Your task to perform on an android device: Show me popular games on the Play Store Image 0: 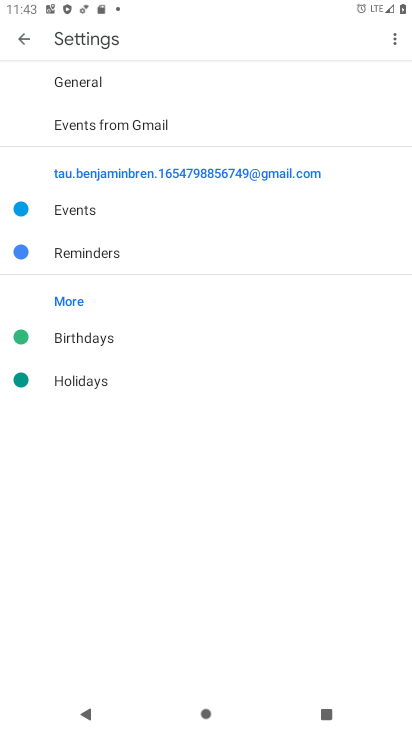
Step 0: press home button
Your task to perform on an android device: Show me popular games on the Play Store Image 1: 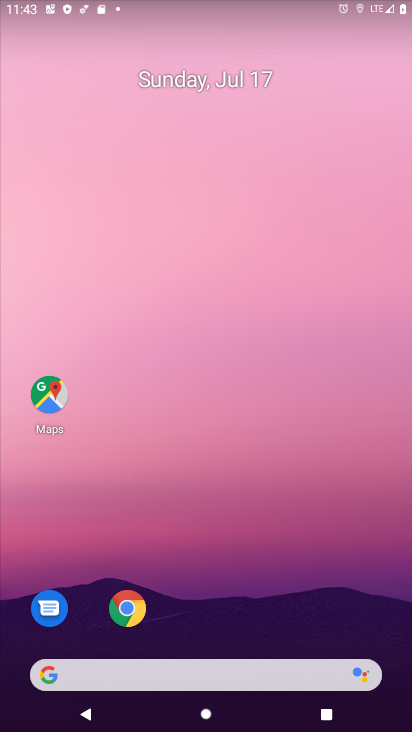
Step 1: drag from (190, 645) to (195, 22)
Your task to perform on an android device: Show me popular games on the Play Store Image 2: 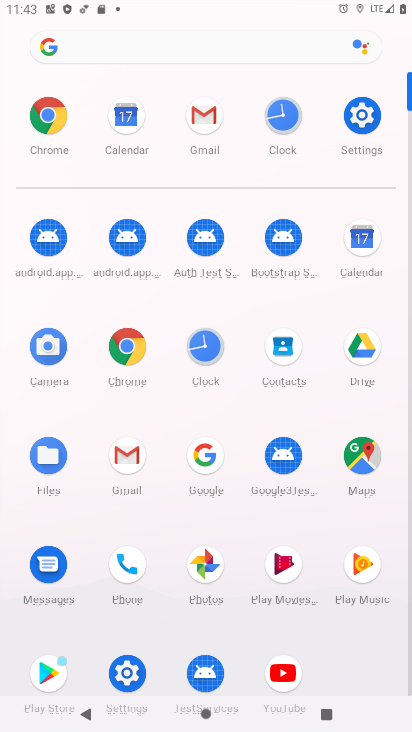
Step 2: click (119, 455)
Your task to perform on an android device: Show me popular games on the Play Store Image 3: 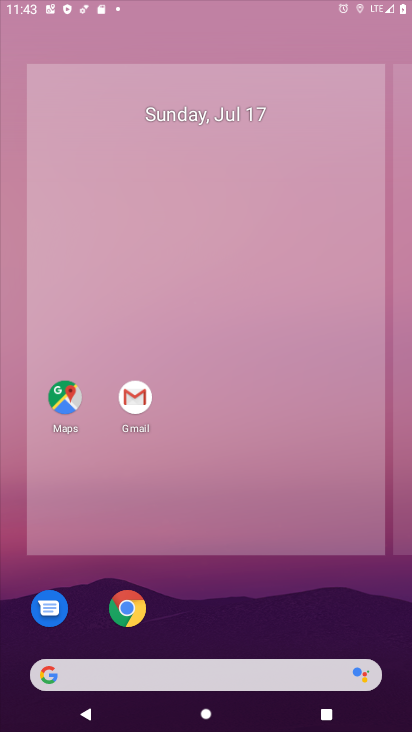
Step 3: drag from (239, 579) to (241, 104)
Your task to perform on an android device: Show me popular games on the Play Store Image 4: 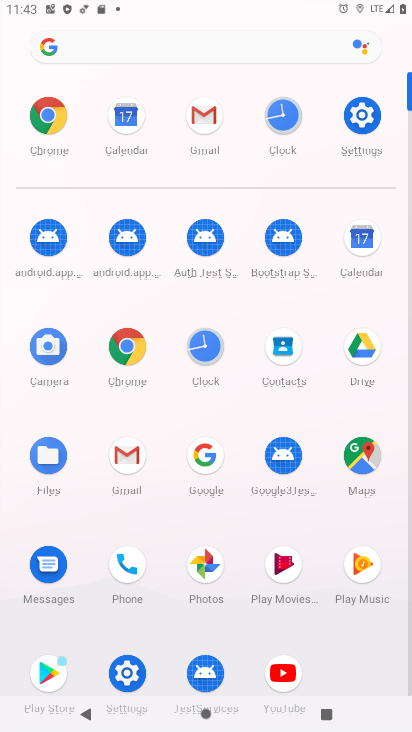
Step 4: click (43, 661)
Your task to perform on an android device: Show me popular games on the Play Store Image 5: 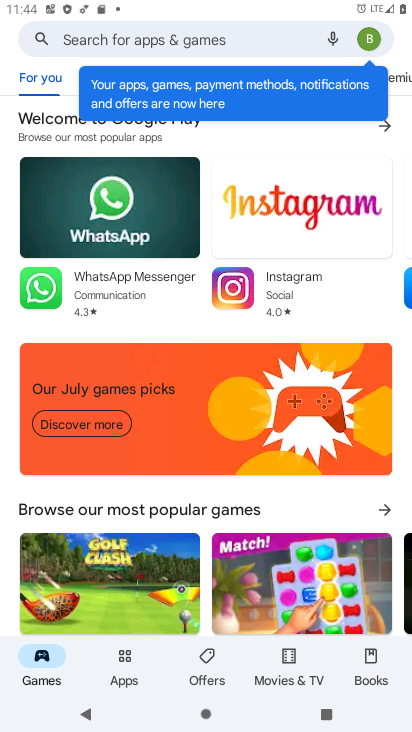
Step 5: click (389, 507)
Your task to perform on an android device: Show me popular games on the Play Store Image 6: 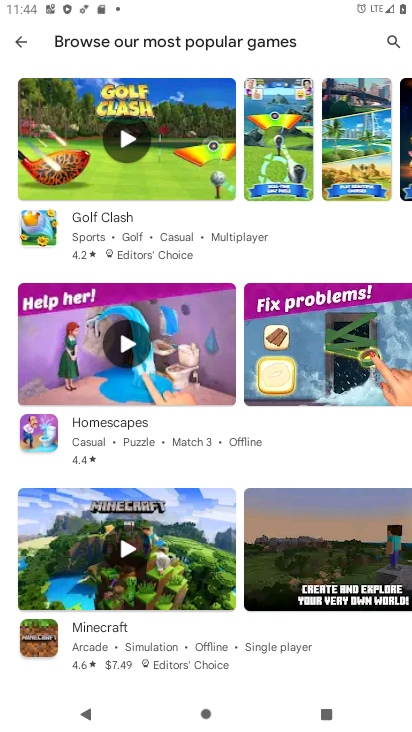
Step 6: task complete